Your task to perform on an android device: What is the speed of sound? Image 0: 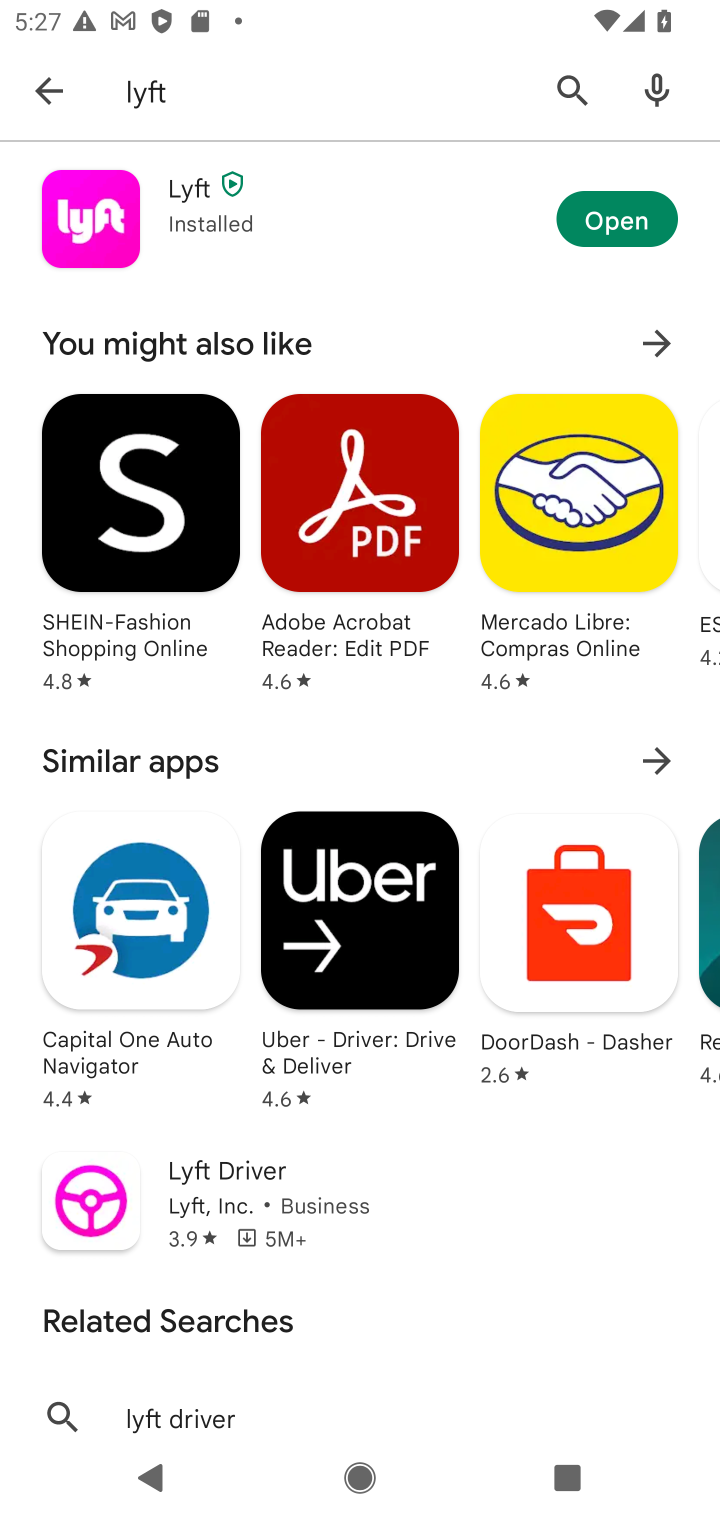
Step 0: press home button
Your task to perform on an android device: What is the speed of sound? Image 1: 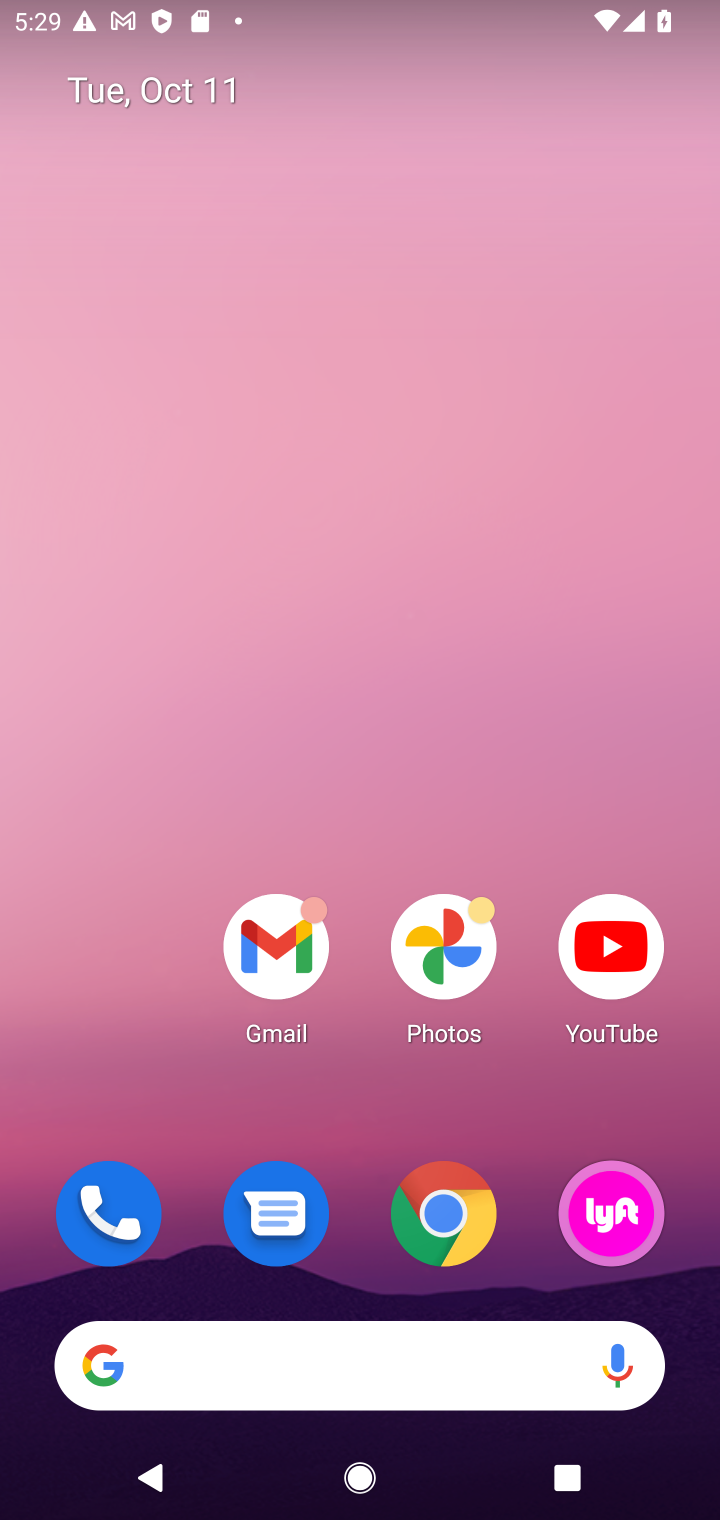
Step 1: drag from (313, 872) to (273, 177)
Your task to perform on an android device: What is the speed of sound? Image 2: 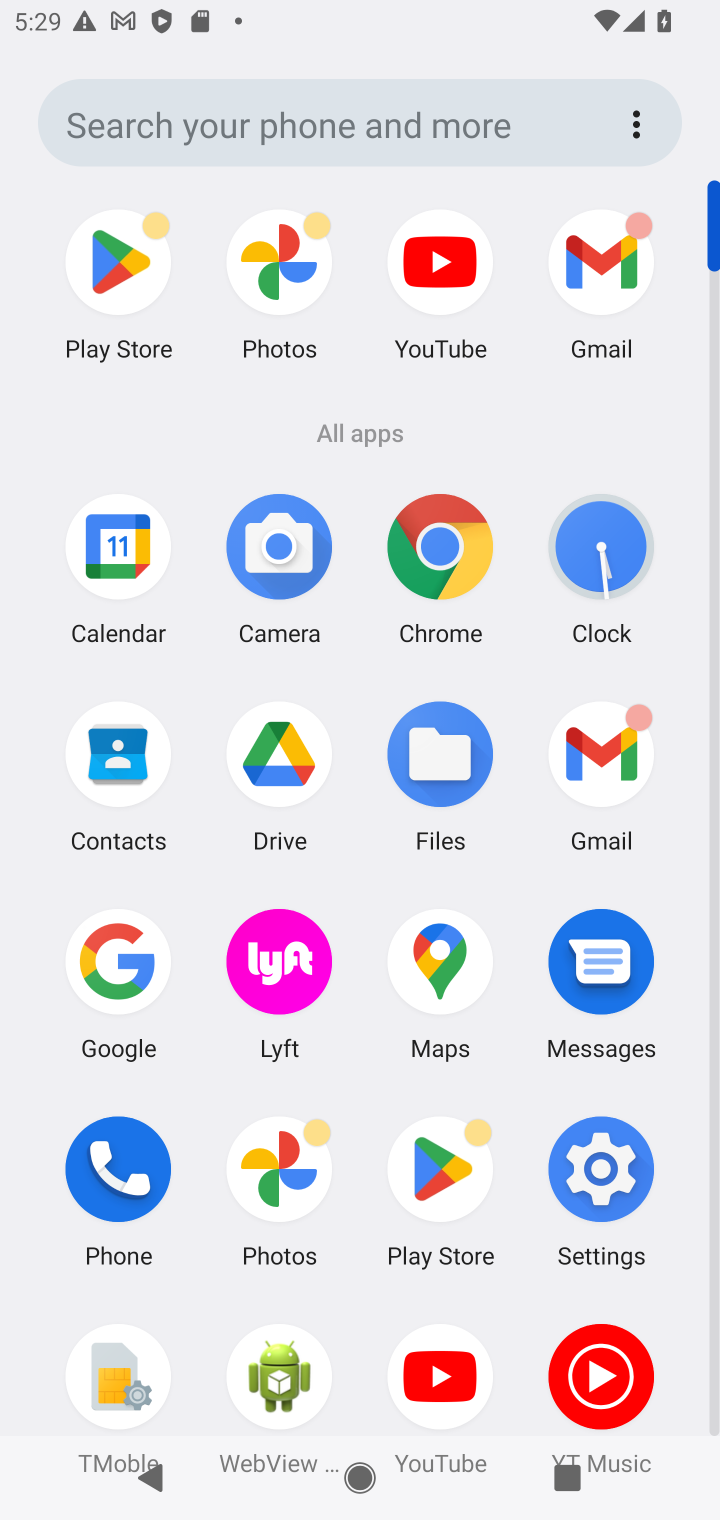
Step 2: click (112, 981)
Your task to perform on an android device: What is the speed of sound? Image 3: 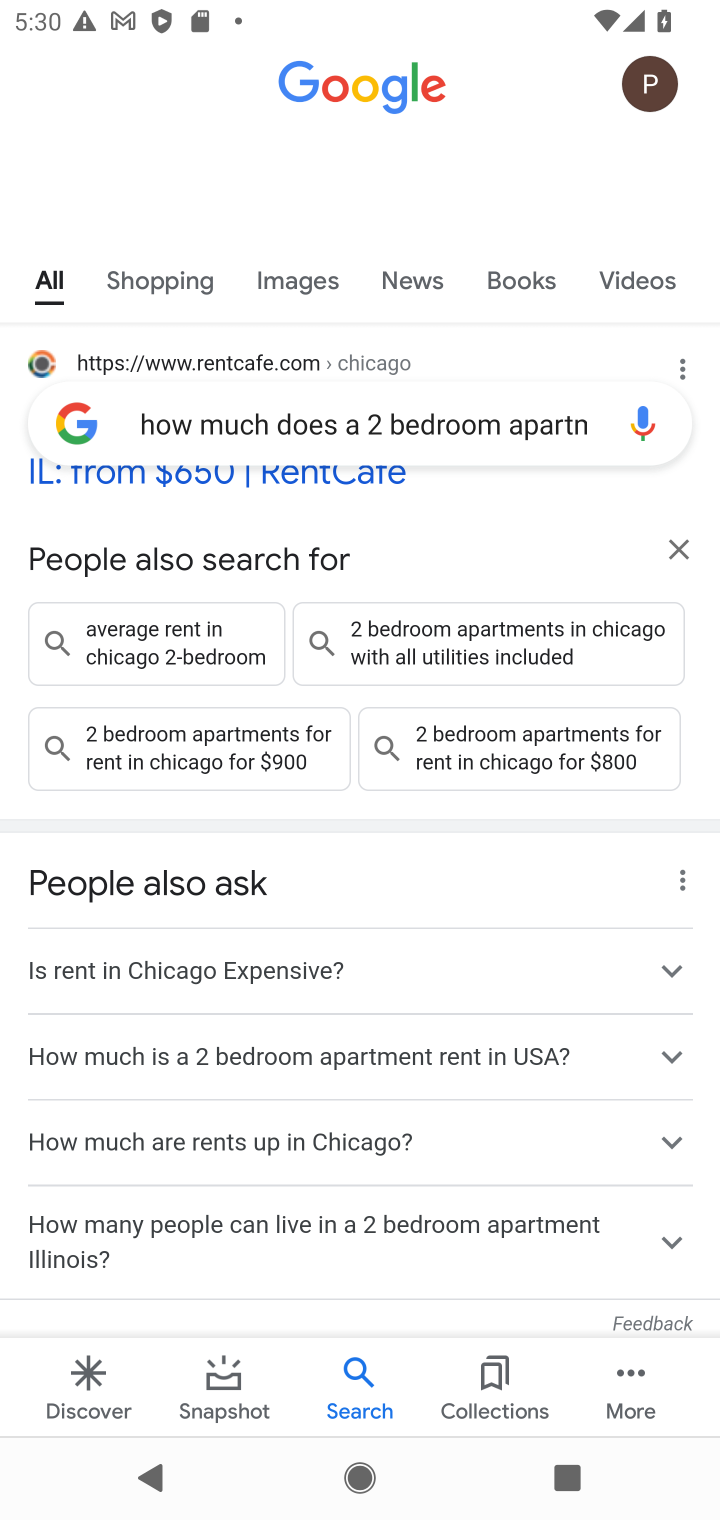
Step 3: click (471, 435)
Your task to perform on an android device: What is the speed of sound? Image 4: 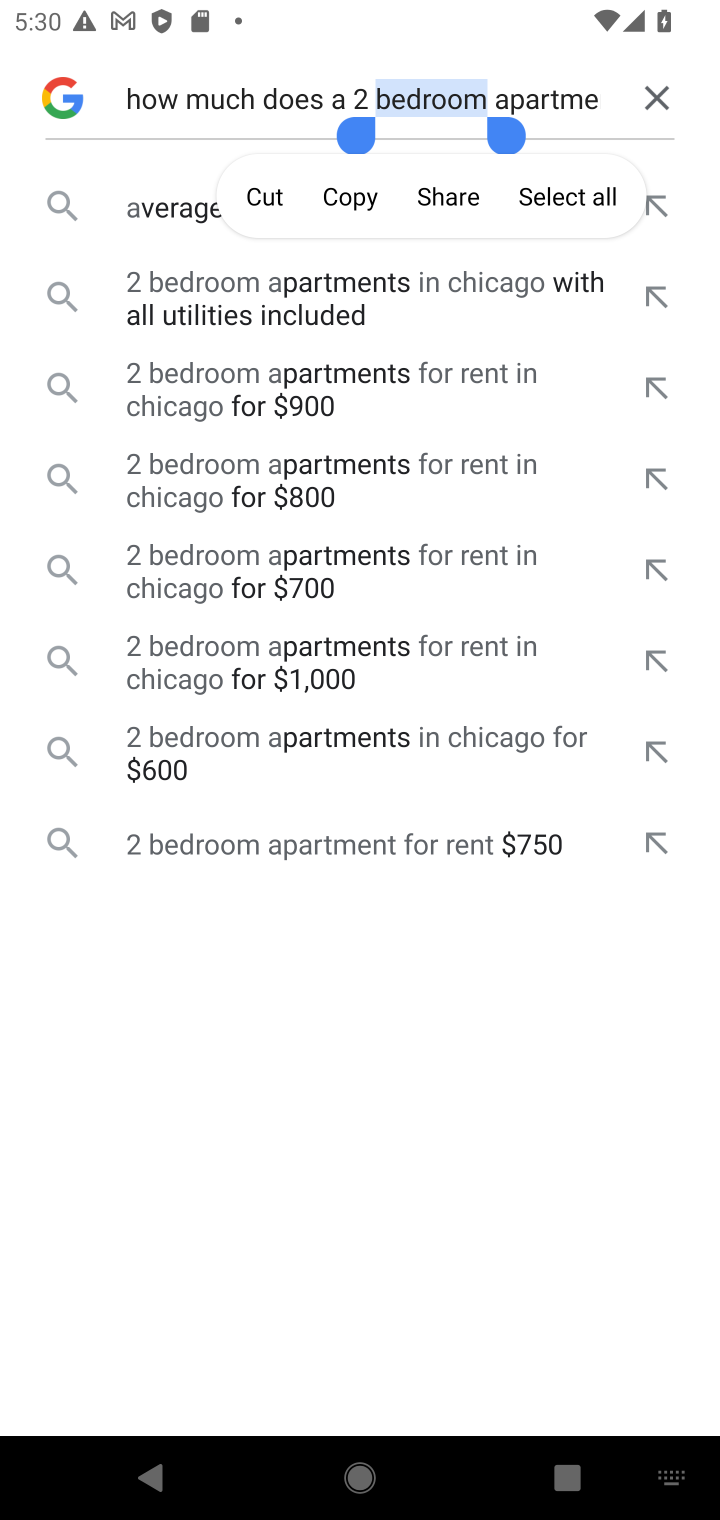
Step 4: click (648, 87)
Your task to perform on an android device: What is the speed of sound? Image 5: 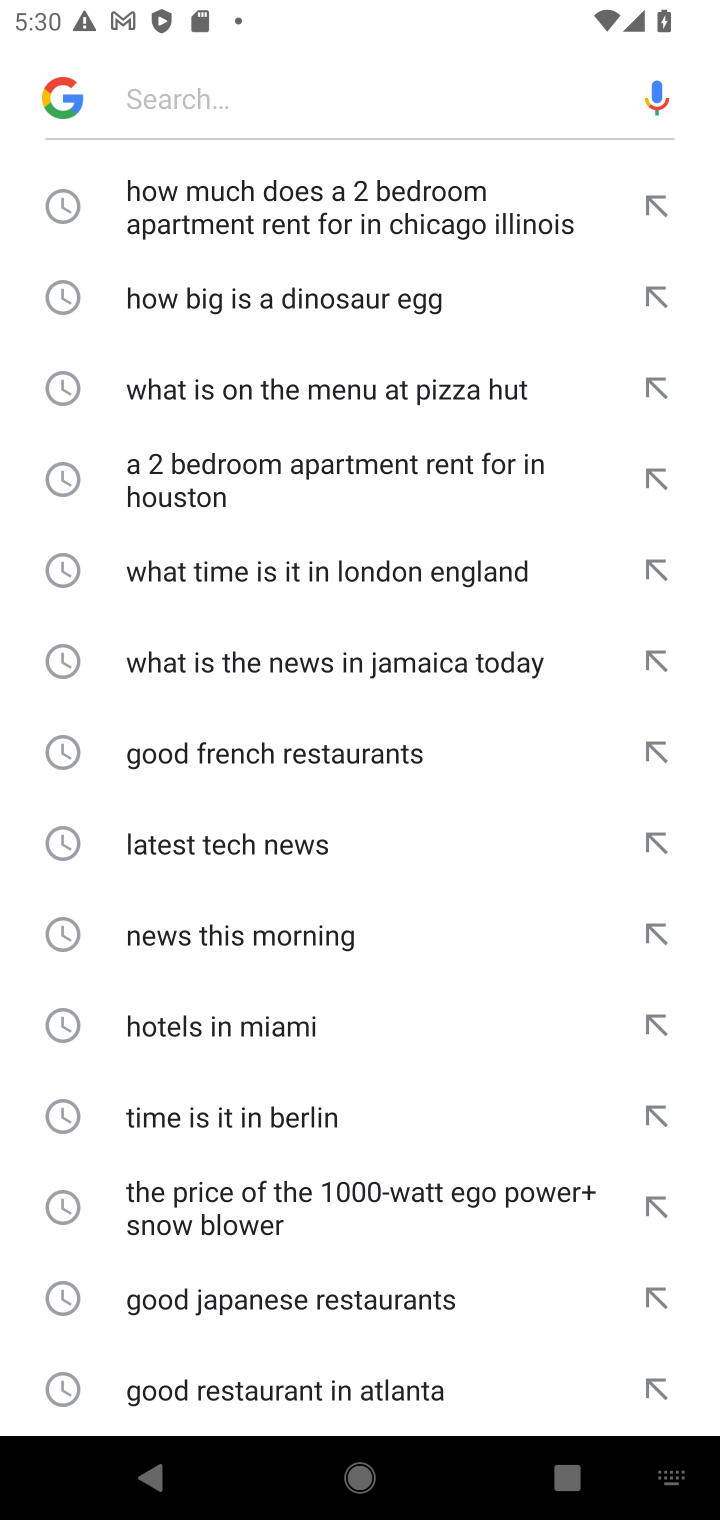
Step 5: type "What is the speed of sound?"
Your task to perform on an android device: What is the speed of sound? Image 6: 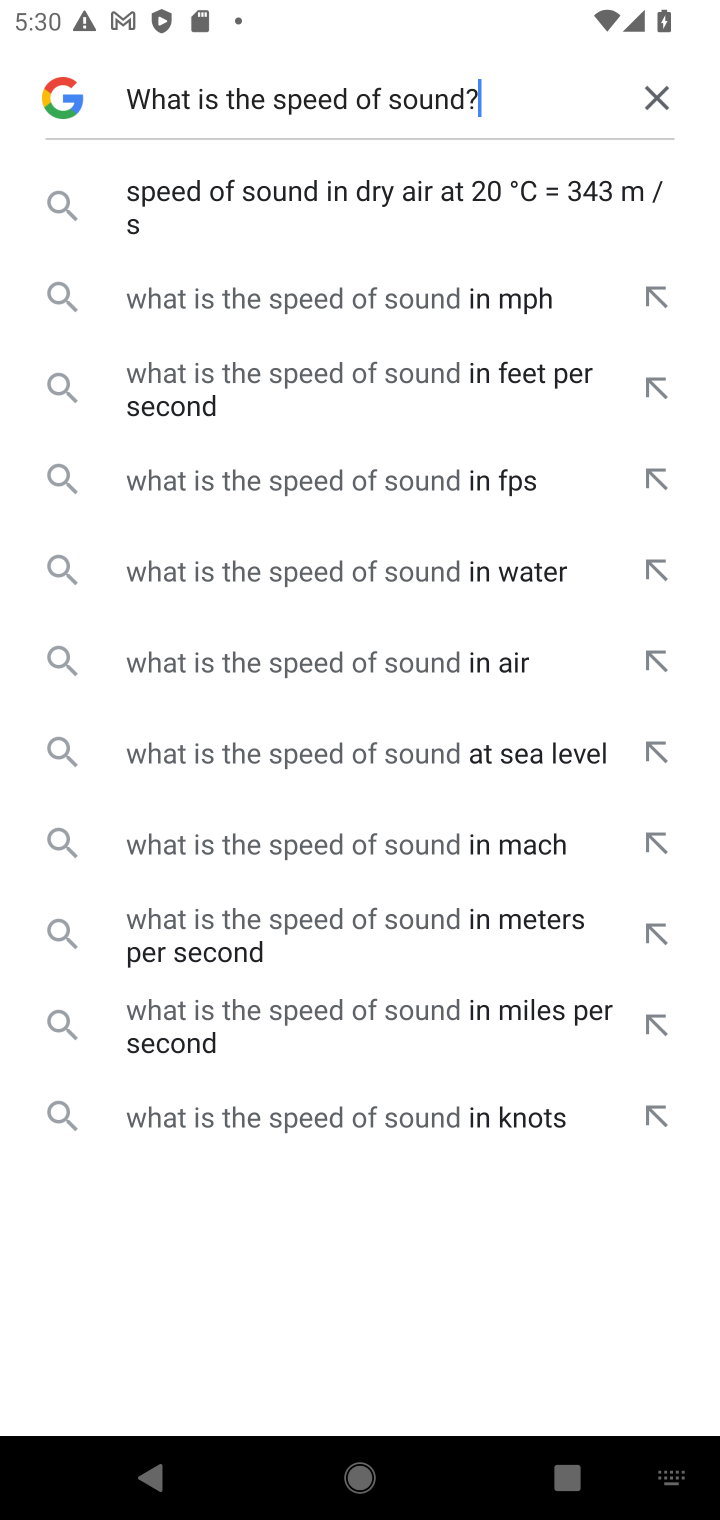
Step 6: click (265, 193)
Your task to perform on an android device: What is the speed of sound? Image 7: 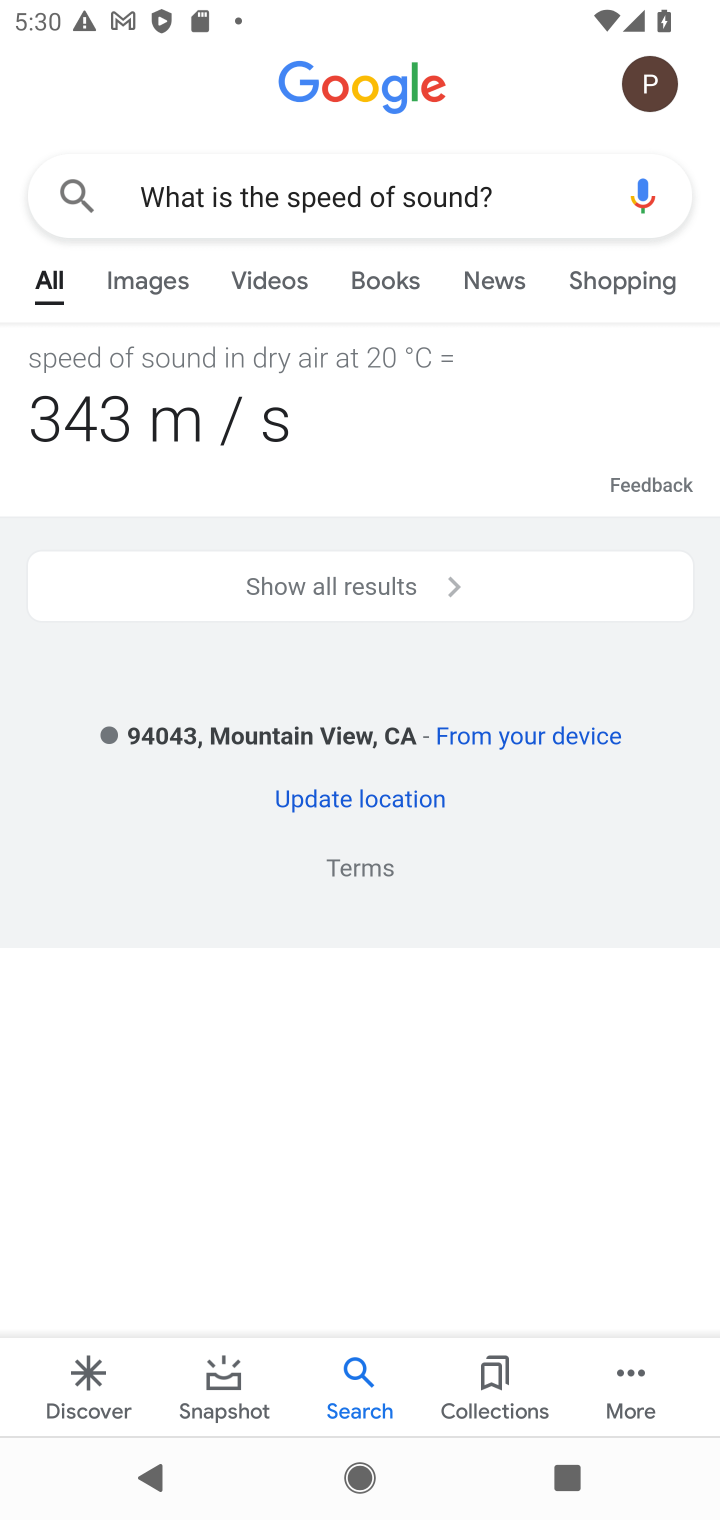
Step 7: task complete